Your task to perform on an android device: turn on airplane mode Image 0: 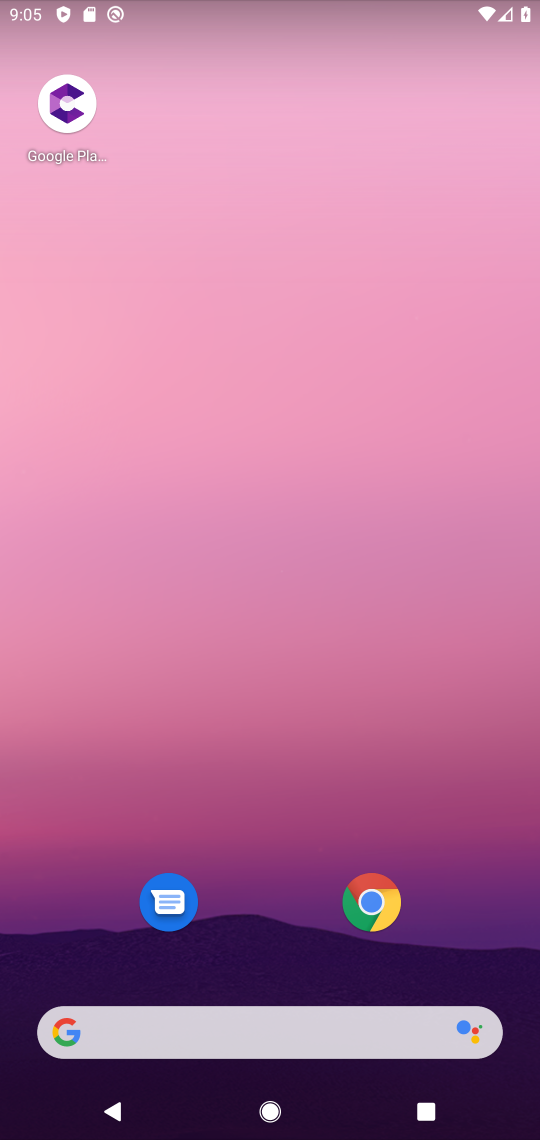
Step 0: drag from (301, 994) to (176, 62)
Your task to perform on an android device: turn on airplane mode Image 1: 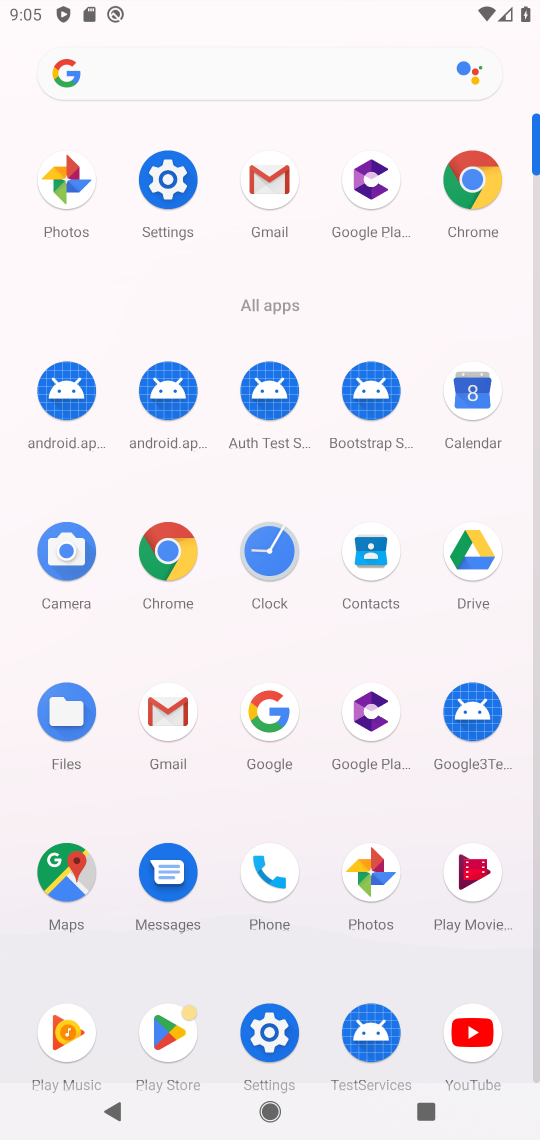
Step 1: click (153, 192)
Your task to perform on an android device: turn on airplane mode Image 2: 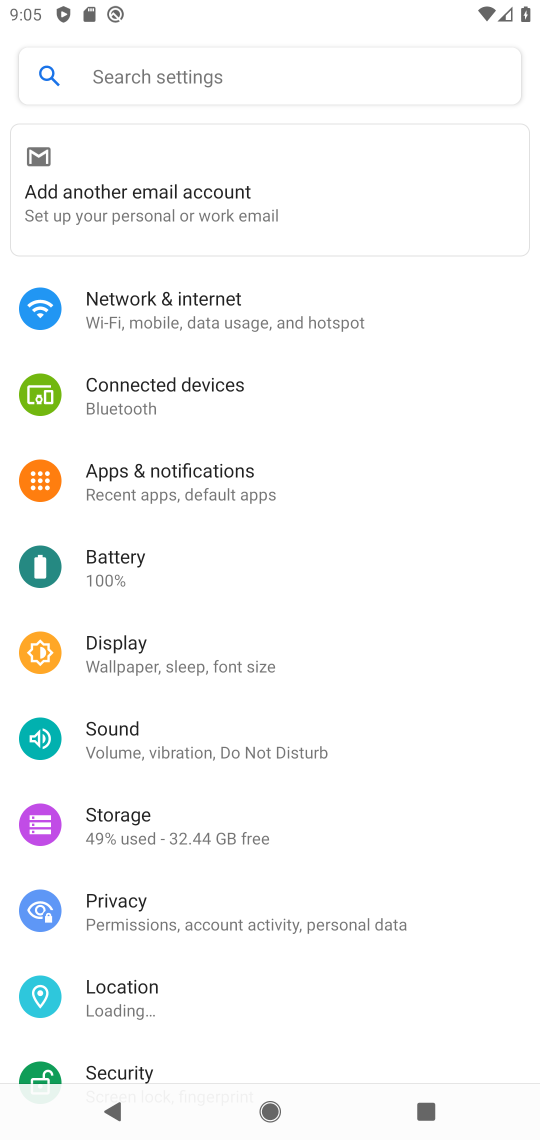
Step 2: click (197, 295)
Your task to perform on an android device: turn on airplane mode Image 3: 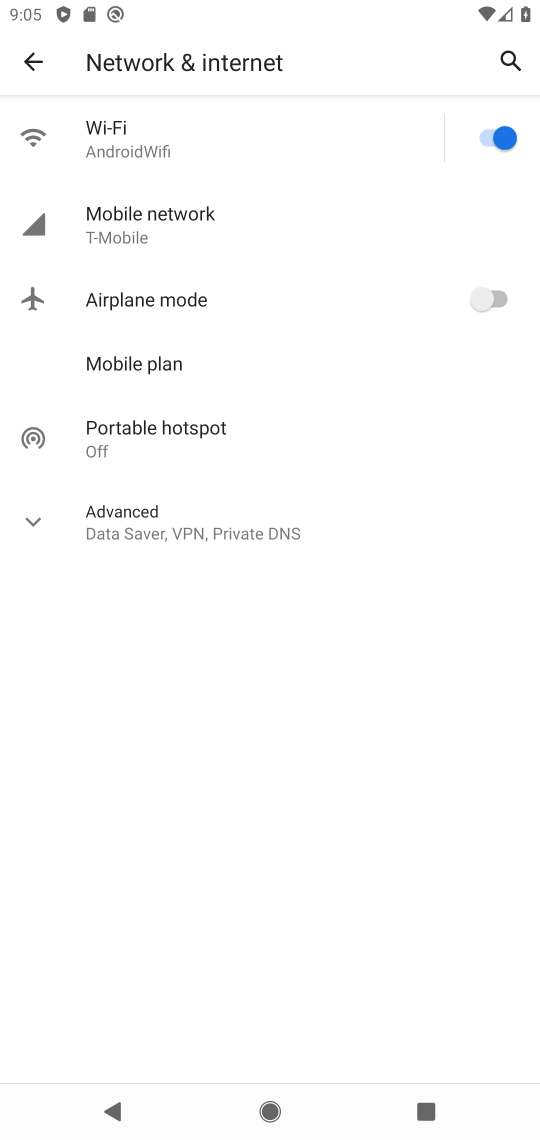
Step 3: click (471, 303)
Your task to perform on an android device: turn on airplane mode Image 4: 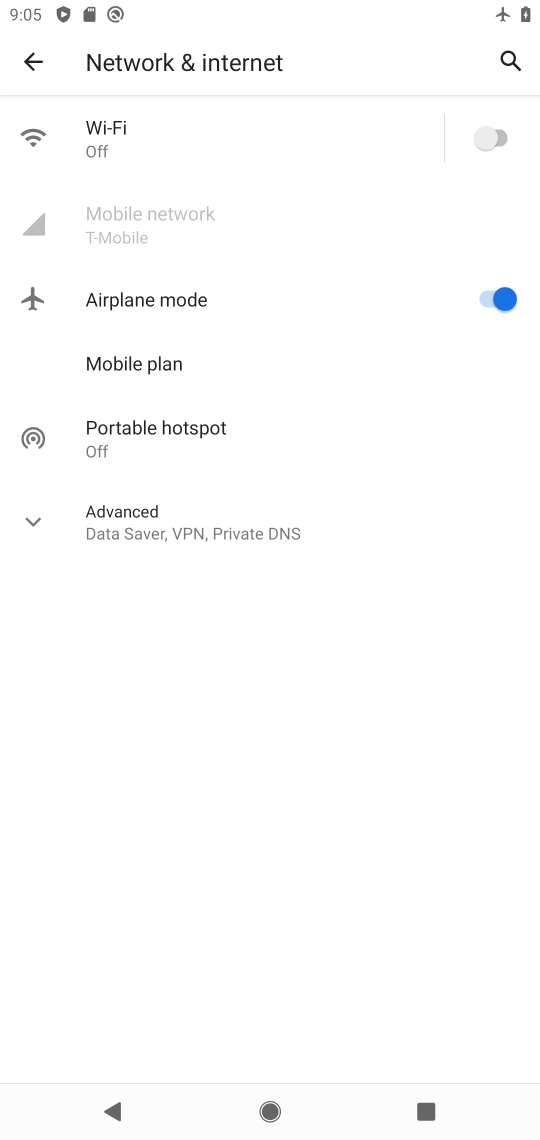
Step 4: task complete